Your task to perform on an android device: turn vacation reply on in the gmail app Image 0: 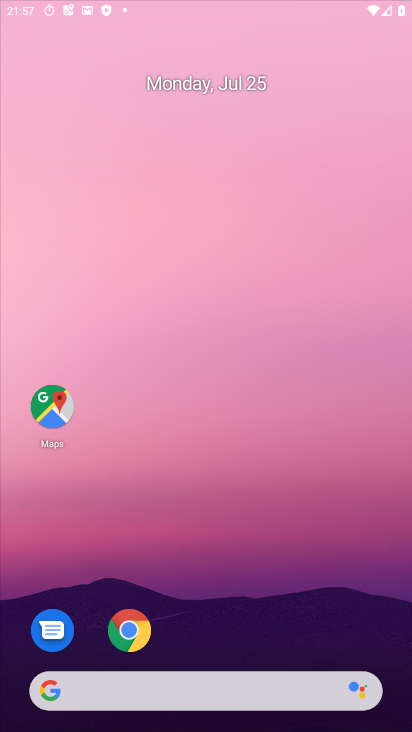
Step 0: press home button
Your task to perform on an android device: turn vacation reply on in the gmail app Image 1: 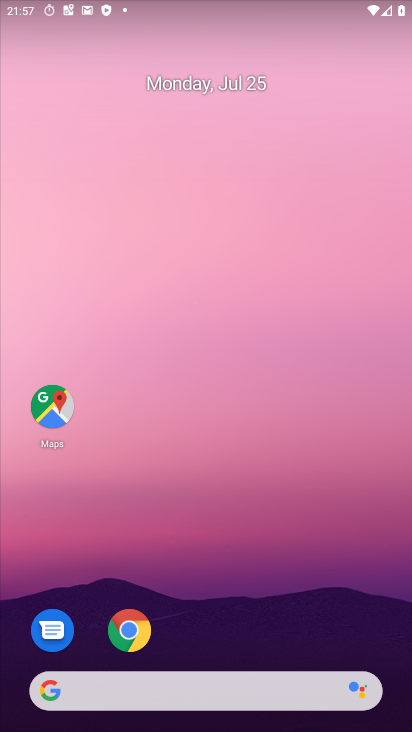
Step 1: drag from (272, 578) to (343, 17)
Your task to perform on an android device: turn vacation reply on in the gmail app Image 2: 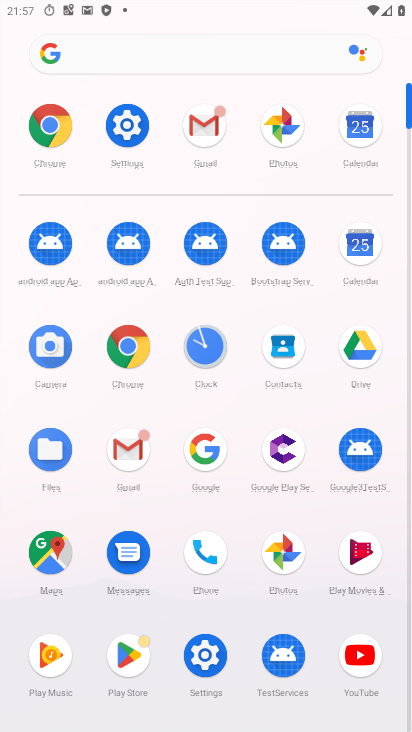
Step 2: click (202, 126)
Your task to perform on an android device: turn vacation reply on in the gmail app Image 3: 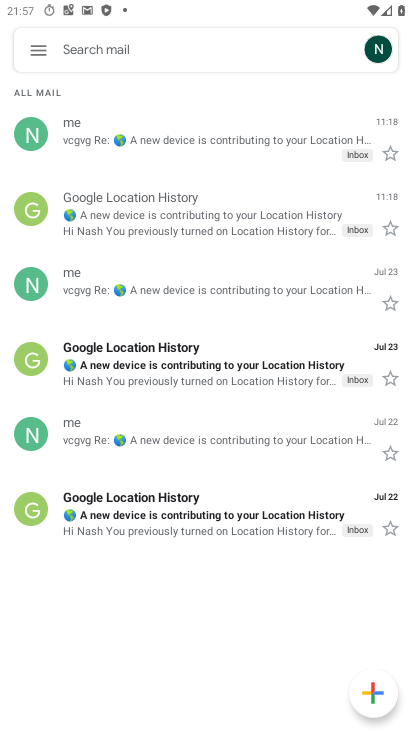
Step 3: click (40, 46)
Your task to perform on an android device: turn vacation reply on in the gmail app Image 4: 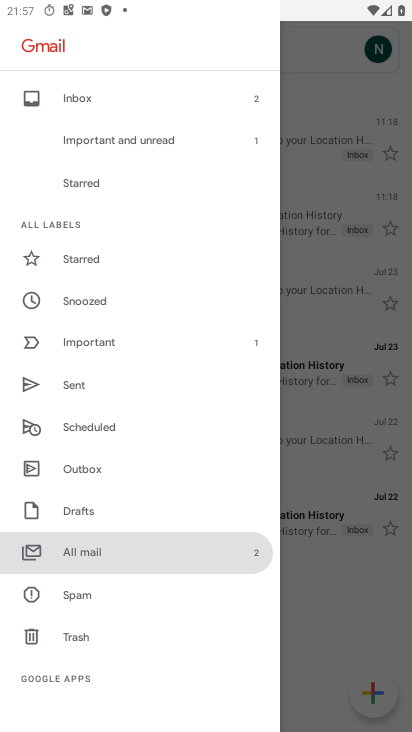
Step 4: drag from (192, 630) to (195, 185)
Your task to perform on an android device: turn vacation reply on in the gmail app Image 5: 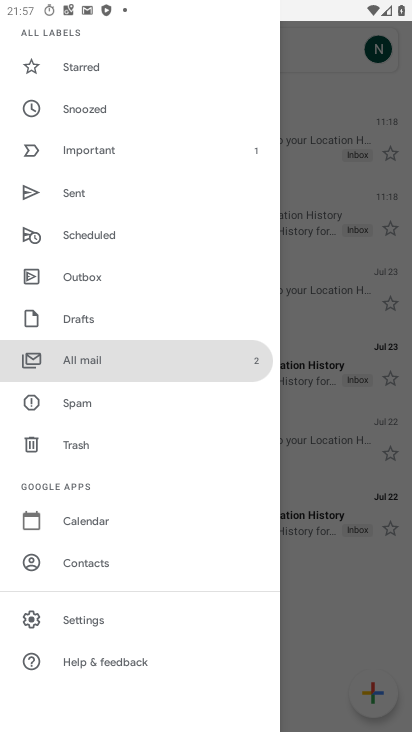
Step 5: click (87, 625)
Your task to perform on an android device: turn vacation reply on in the gmail app Image 6: 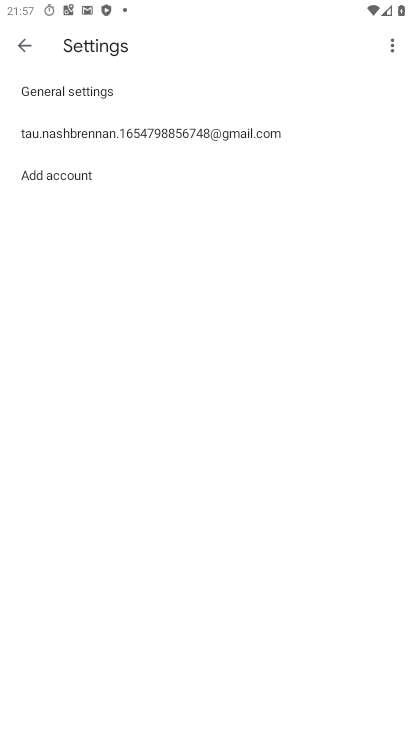
Step 6: click (105, 136)
Your task to perform on an android device: turn vacation reply on in the gmail app Image 7: 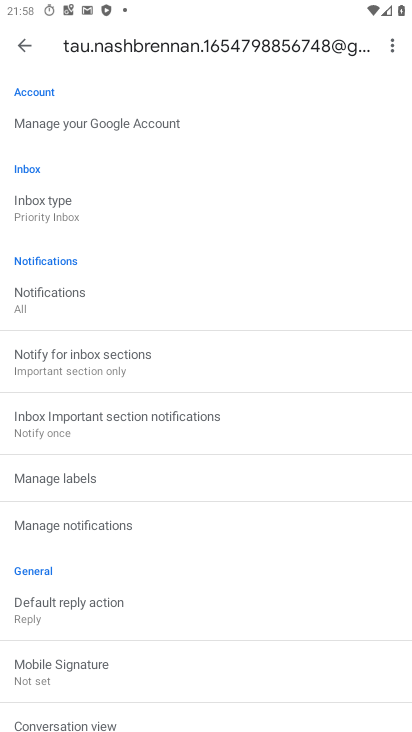
Step 7: drag from (250, 675) to (247, 188)
Your task to perform on an android device: turn vacation reply on in the gmail app Image 8: 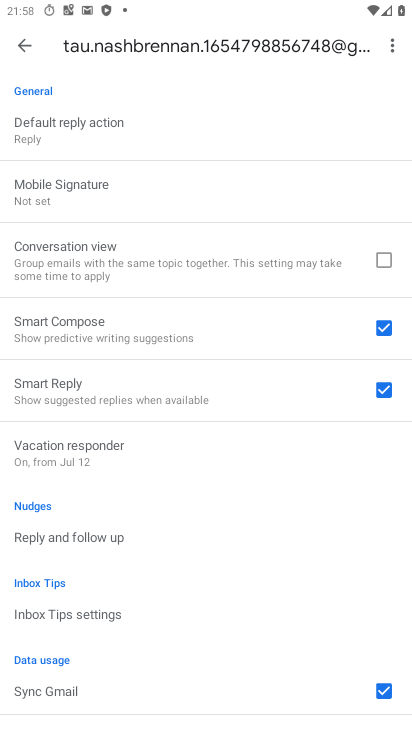
Step 8: click (72, 451)
Your task to perform on an android device: turn vacation reply on in the gmail app Image 9: 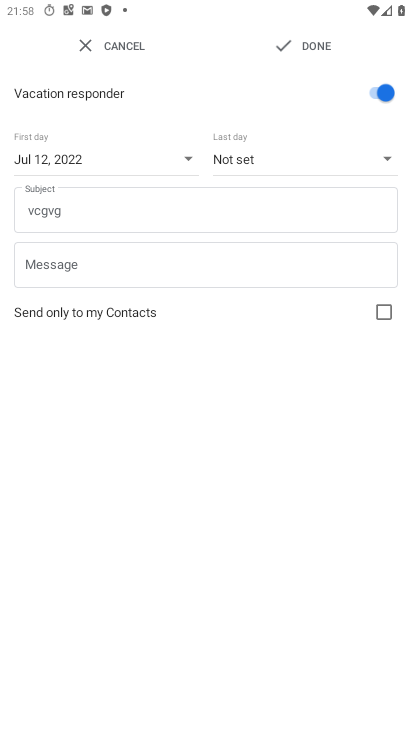
Step 9: task complete